Your task to perform on an android device: Show me productivity apps on the Play Store Image 0: 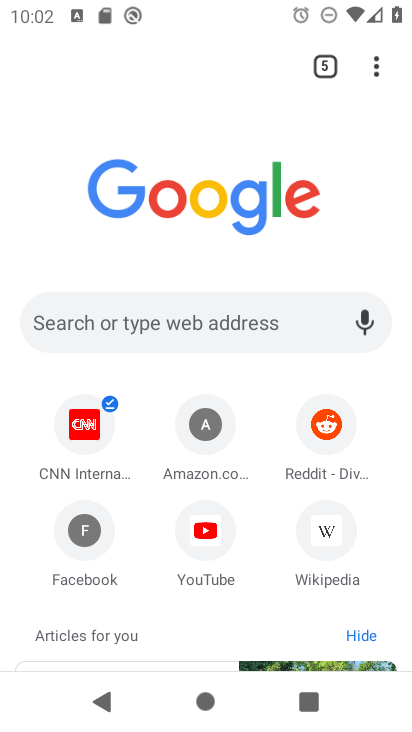
Step 0: press home button
Your task to perform on an android device: Show me productivity apps on the Play Store Image 1: 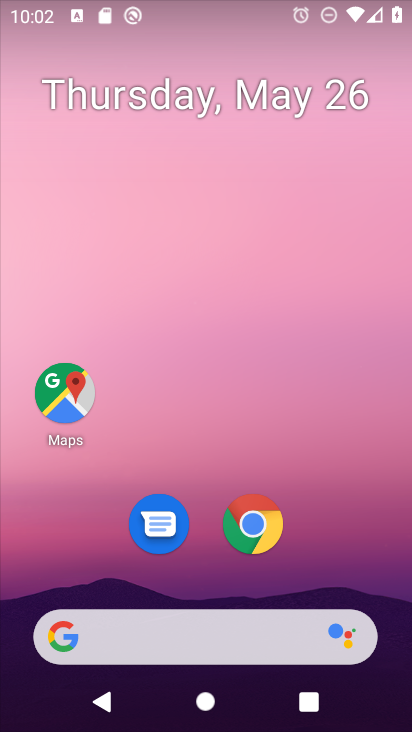
Step 1: drag from (328, 551) to (341, 6)
Your task to perform on an android device: Show me productivity apps on the Play Store Image 2: 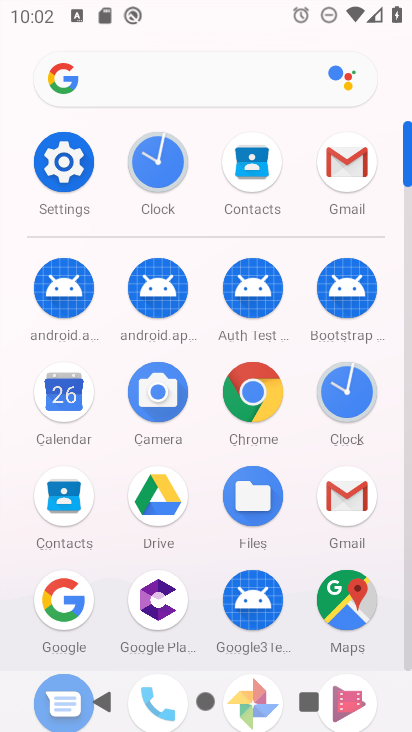
Step 2: drag from (201, 480) to (197, 143)
Your task to perform on an android device: Show me productivity apps on the Play Store Image 3: 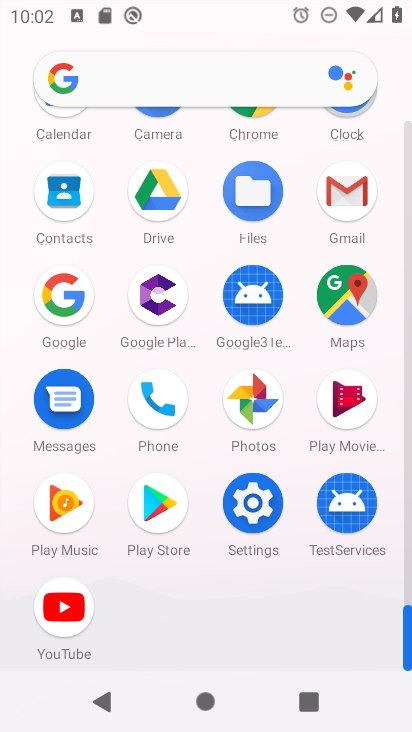
Step 3: click (161, 493)
Your task to perform on an android device: Show me productivity apps on the Play Store Image 4: 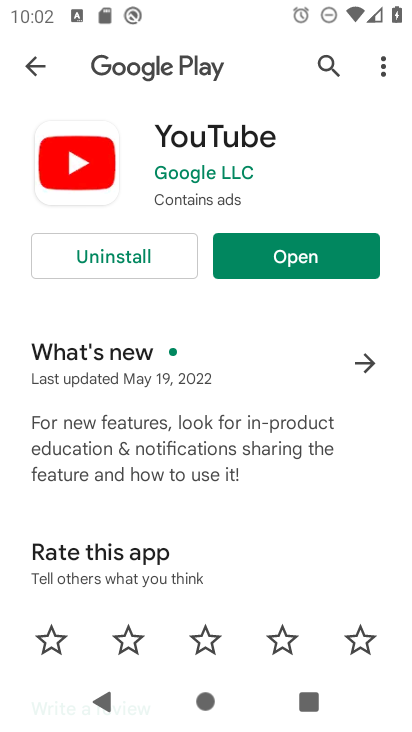
Step 4: click (38, 59)
Your task to perform on an android device: Show me productivity apps on the Play Store Image 5: 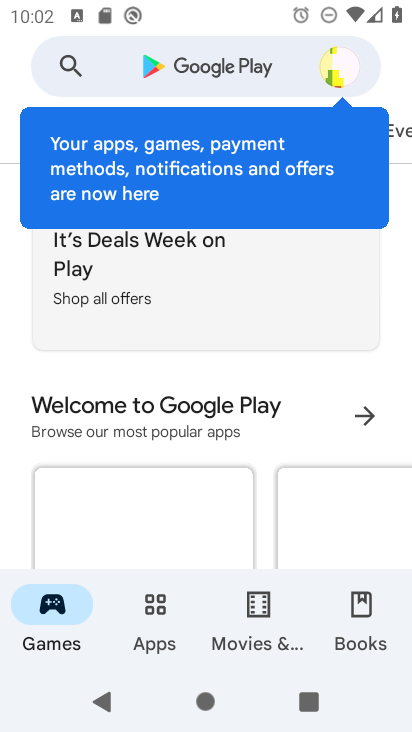
Step 5: click (154, 592)
Your task to perform on an android device: Show me productivity apps on the Play Store Image 6: 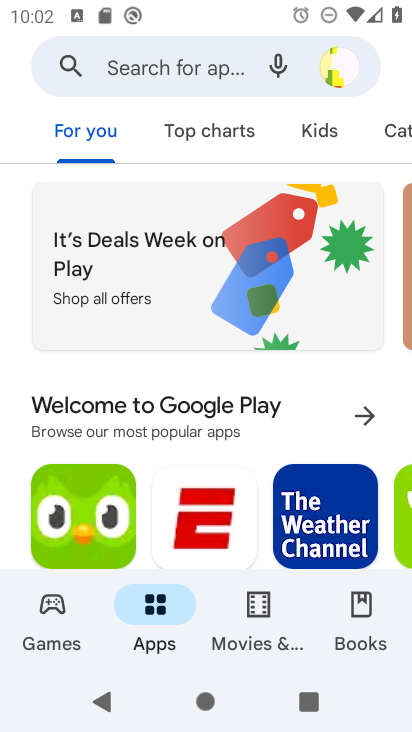
Step 6: click (392, 128)
Your task to perform on an android device: Show me productivity apps on the Play Store Image 7: 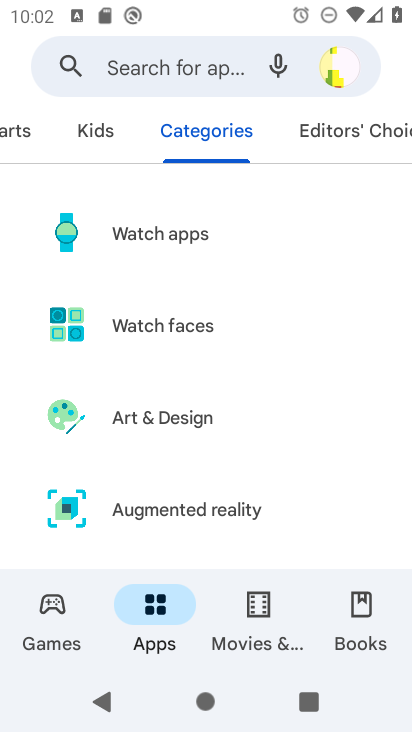
Step 7: drag from (257, 445) to (276, 83)
Your task to perform on an android device: Show me productivity apps on the Play Store Image 8: 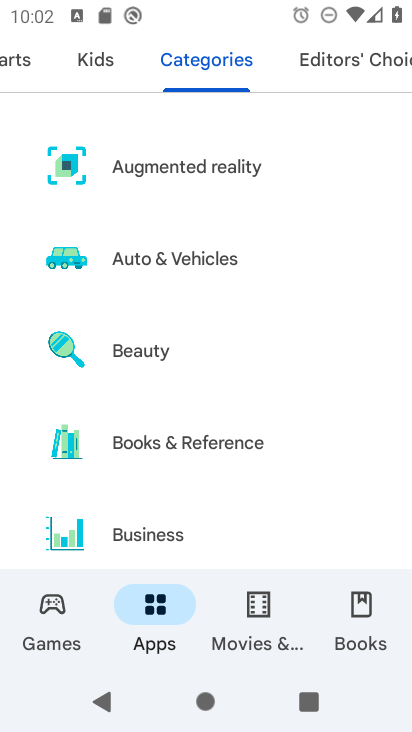
Step 8: drag from (240, 498) to (247, 43)
Your task to perform on an android device: Show me productivity apps on the Play Store Image 9: 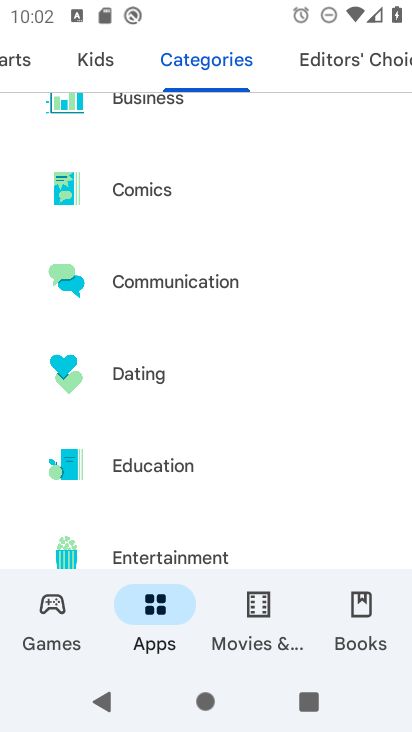
Step 9: drag from (255, 519) to (238, 133)
Your task to perform on an android device: Show me productivity apps on the Play Store Image 10: 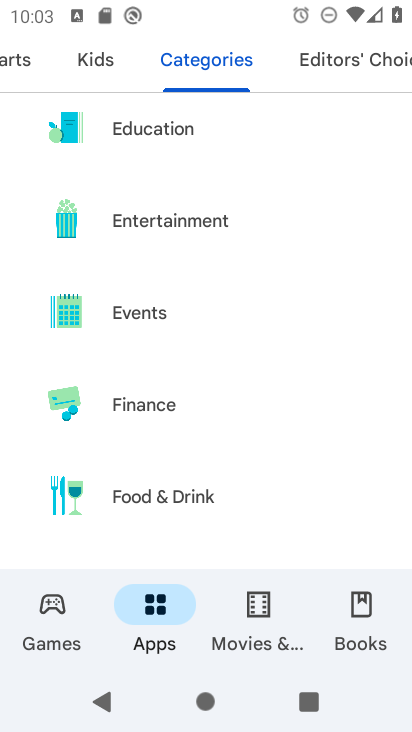
Step 10: drag from (249, 496) to (301, 93)
Your task to perform on an android device: Show me productivity apps on the Play Store Image 11: 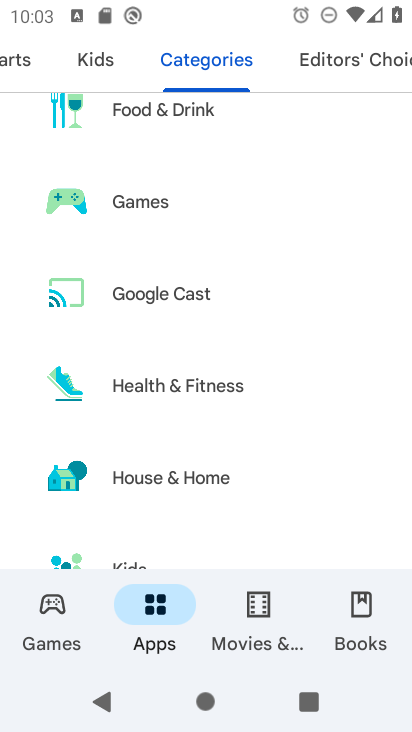
Step 11: drag from (270, 484) to (274, 98)
Your task to perform on an android device: Show me productivity apps on the Play Store Image 12: 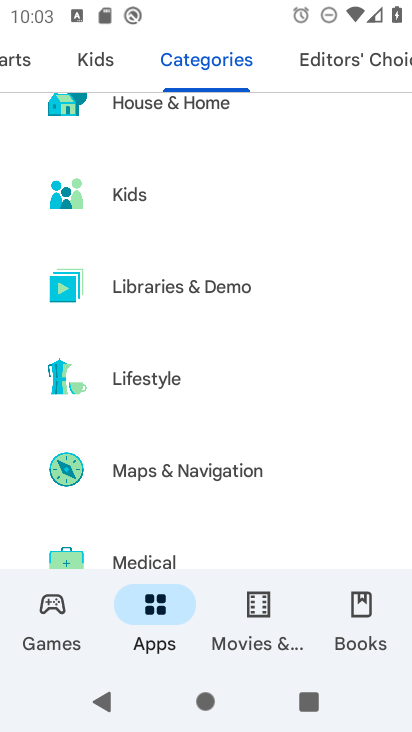
Step 12: drag from (262, 509) to (277, 102)
Your task to perform on an android device: Show me productivity apps on the Play Store Image 13: 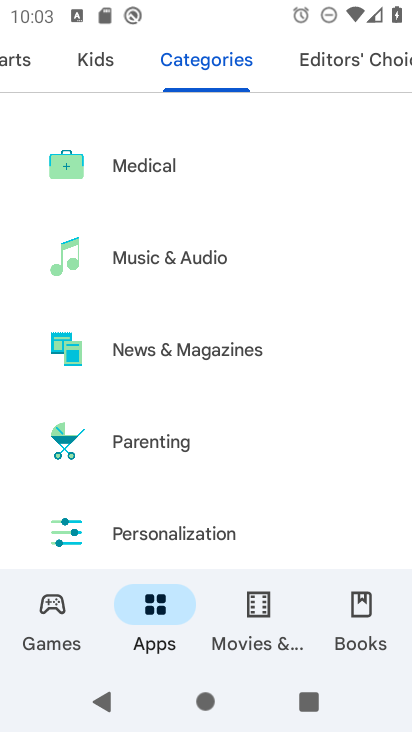
Step 13: drag from (266, 483) to (271, 163)
Your task to perform on an android device: Show me productivity apps on the Play Store Image 14: 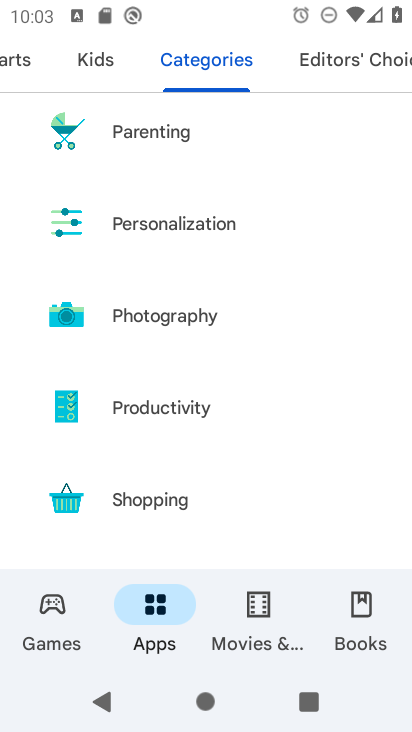
Step 14: click (167, 401)
Your task to perform on an android device: Show me productivity apps on the Play Store Image 15: 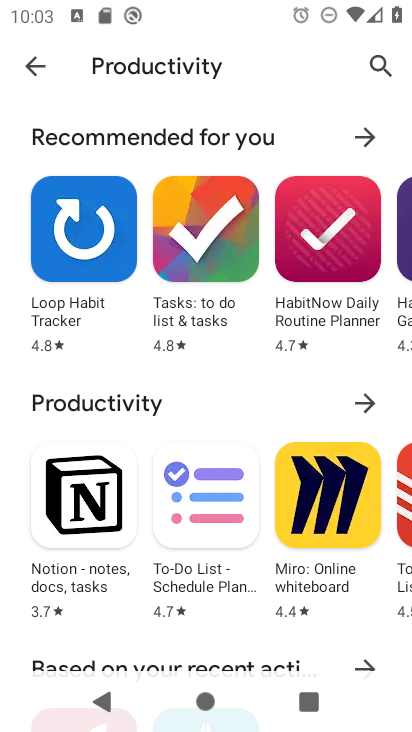
Step 15: task complete